Your task to perform on an android device: Open the map Image 0: 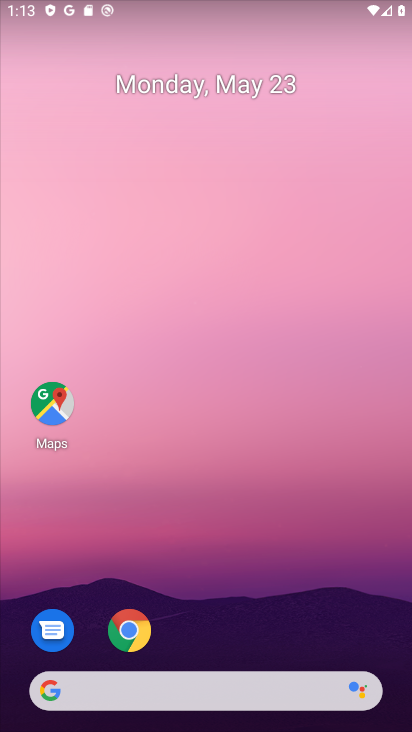
Step 0: click (51, 391)
Your task to perform on an android device: Open the map Image 1: 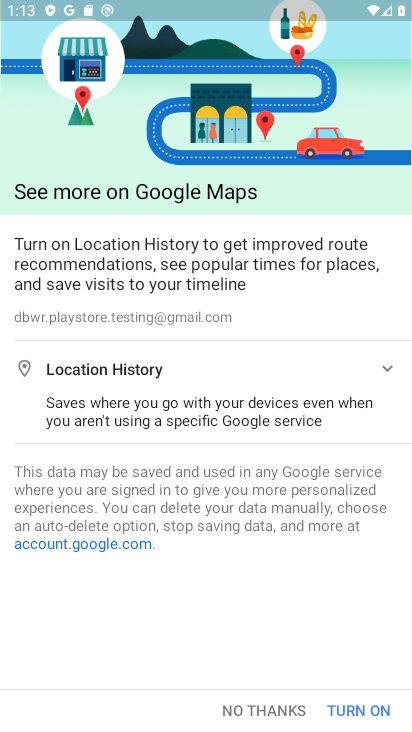
Step 1: task complete